Your task to perform on an android device: Open Chrome and go to settings Image 0: 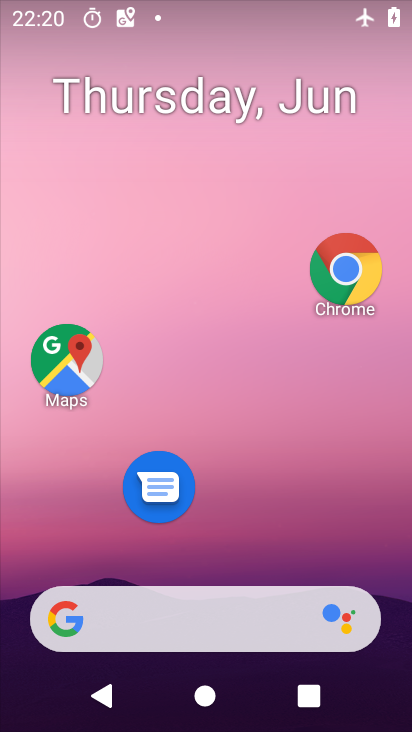
Step 0: drag from (248, 480) to (275, 280)
Your task to perform on an android device: Open Chrome and go to settings Image 1: 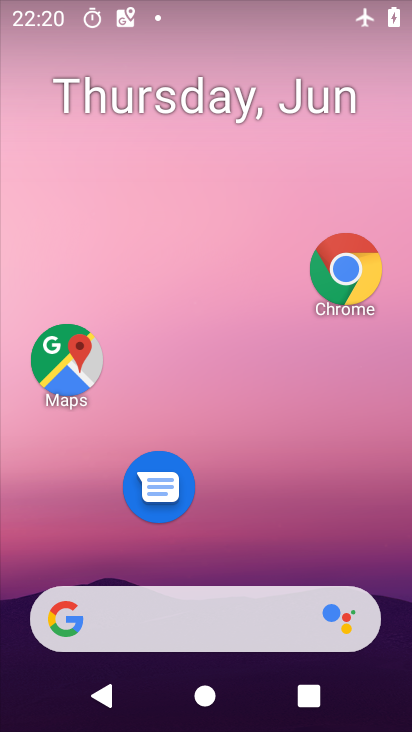
Step 1: drag from (230, 546) to (284, 104)
Your task to perform on an android device: Open Chrome and go to settings Image 2: 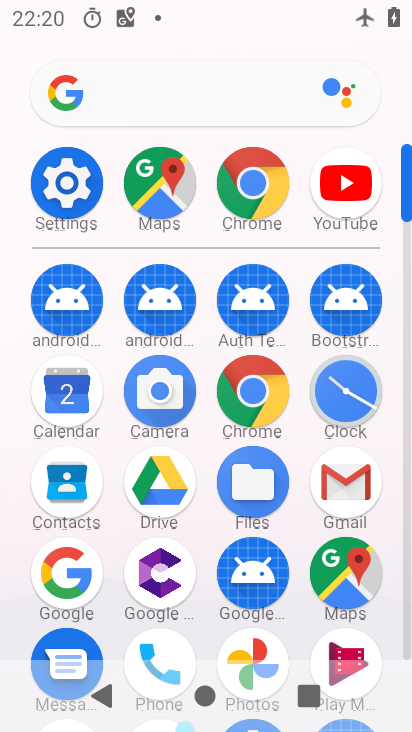
Step 2: click (253, 182)
Your task to perform on an android device: Open Chrome and go to settings Image 3: 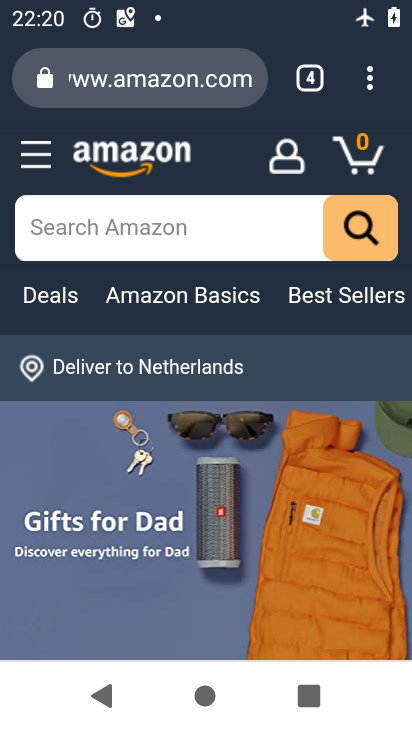
Step 3: task complete